Your task to perform on an android device: delete browsing data in the chrome app Image 0: 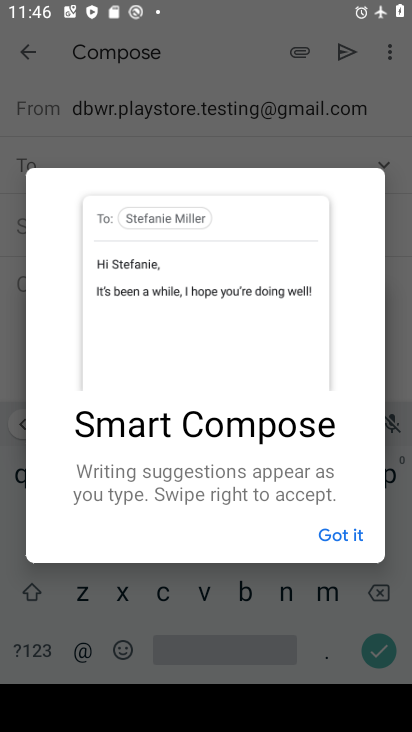
Step 0: press home button
Your task to perform on an android device: delete browsing data in the chrome app Image 1: 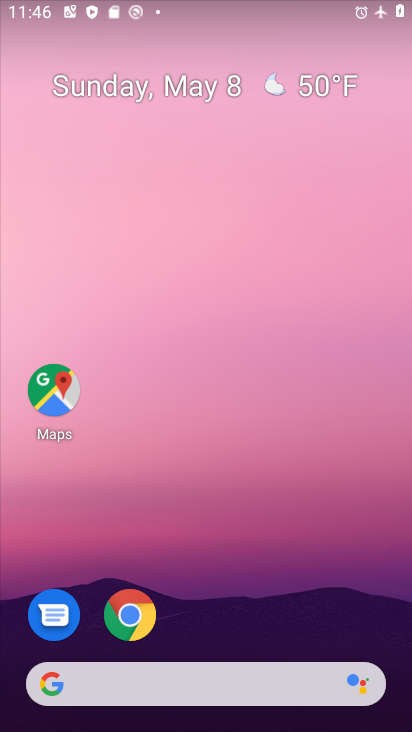
Step 1: drag from (240, 711) to (348, 148)
Your task to perform on an android device: delete browsing data in the chrome app Image 2: 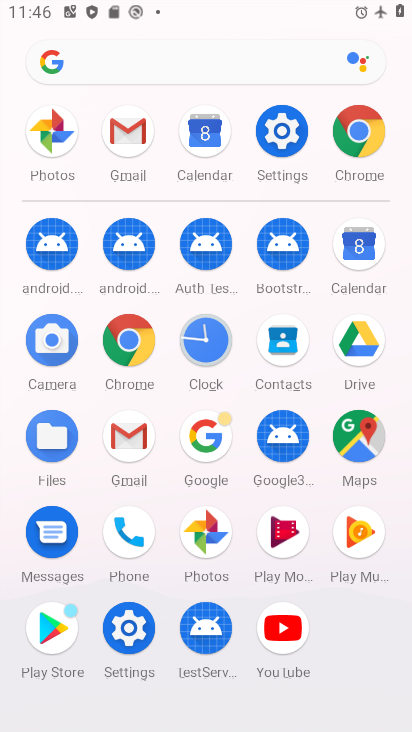
Step 2: click (347, 146)
Your task to perform on an android device: delete browsing data in the chrome app Image 3: 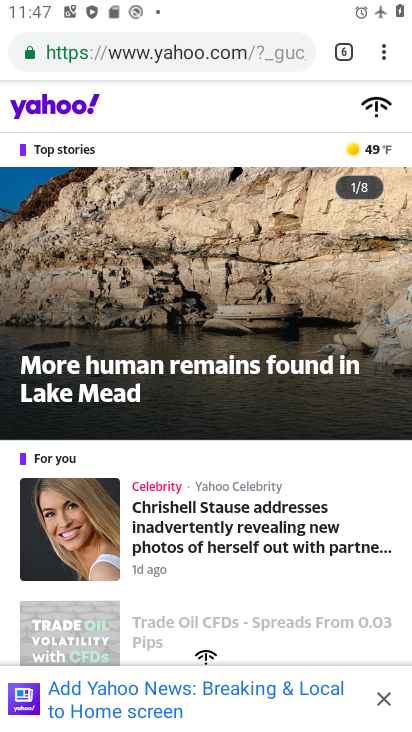
Step 3: click (375, 63)
Your task to perform on an android device: delete browsing data in the chrome app Image 4: 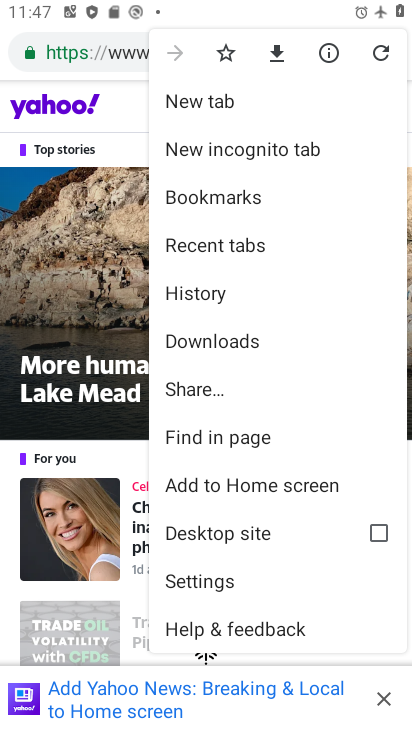
Step 4: click (234, 299)
Your task to perform on an android device: delete browsing data in the chrome app Image 5: 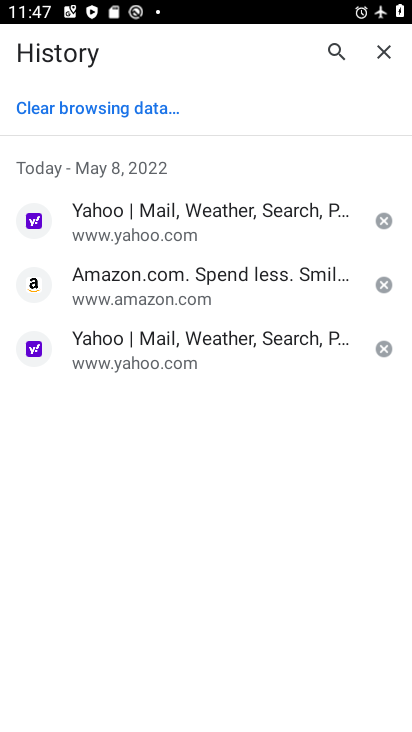
Step 5: click (79, 112)
Your task to perform on an android device: delete browsing data in the chrome app Image 6: 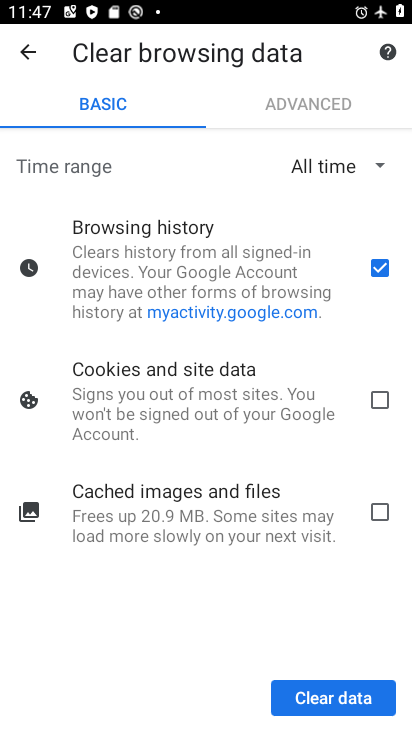
Step 6: click (309, 693)
Your task to perform on an android device: delete browsing data in the chrome app Image 7: 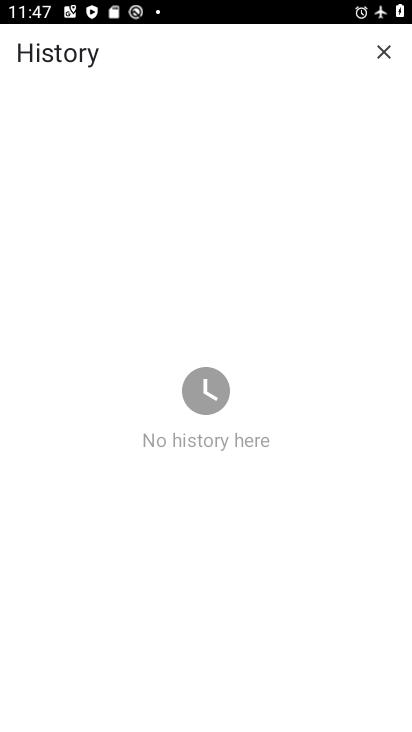
Step 7: task complete